Your task to perform on an android device: empty trash in google photos Image 0: 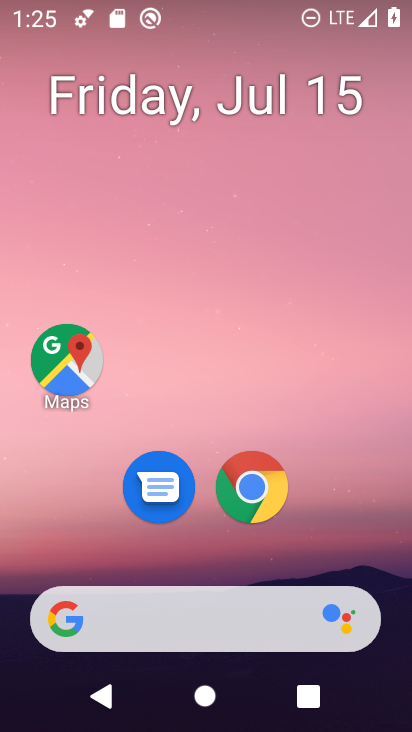
Step 0: drag from (165, 634) to (355, 8)
Your task to perform on an android device: empty trash in google photos Image 1: 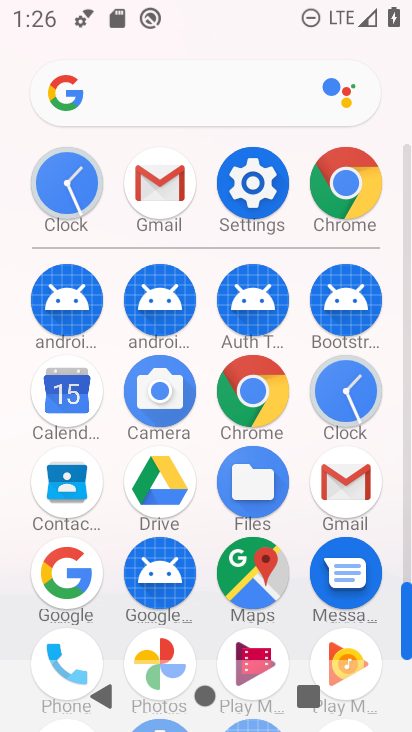
Step 1: click (153, 676)
Your task to perform on an android device: empty trash in google photos Image 2: 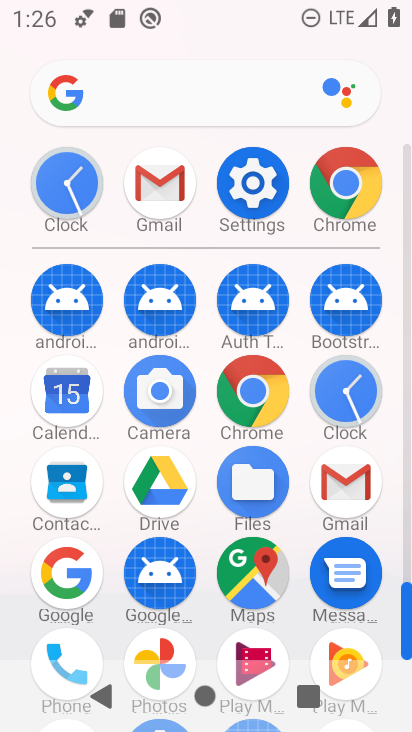
Step 2: drag from (172, 581) to (258, 226)
Your task to perform on an android device: empty trash in google photos Image 3: 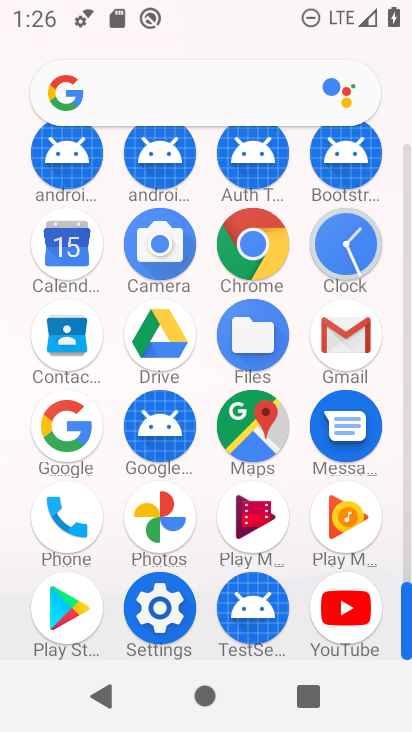
Step 3: click (168, 518)
Your task to perform on an android device: empty trash in google photos Image 4: 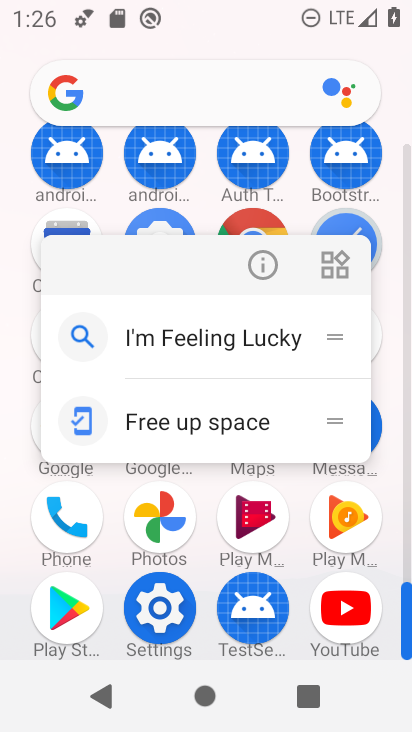
Step 4: click (171, 501)
Your task to perform on an android device: empty trash in google photos Image 5: 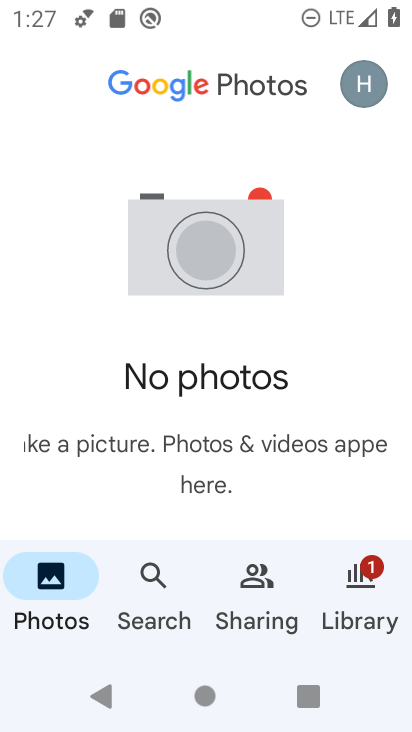
Step 5: click (362, 82)
Your task to perform on an android device: empty trash in google photos Image 6: 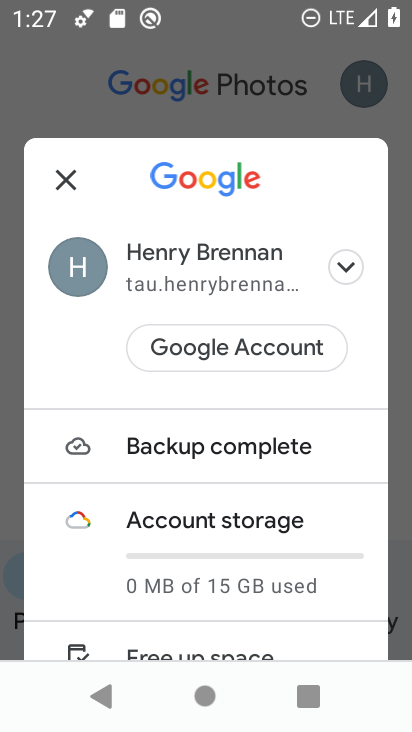
Step 6: task complete